Your task to perform on an android device: Open privacy settings Image 0: 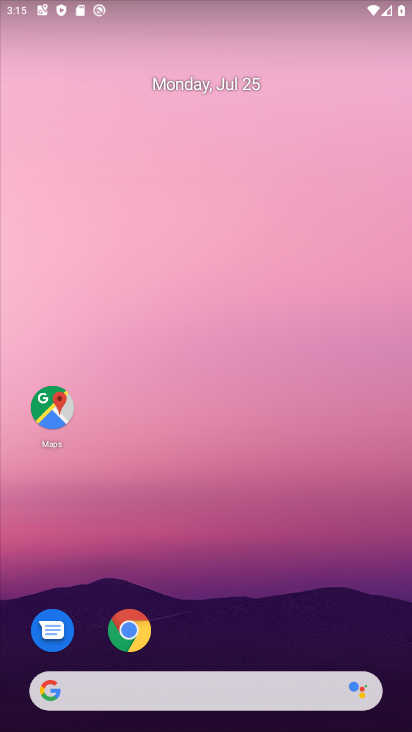
Step 0: click (127, 615)
Your task to perform on an android device: Open privacy settings Image 1: 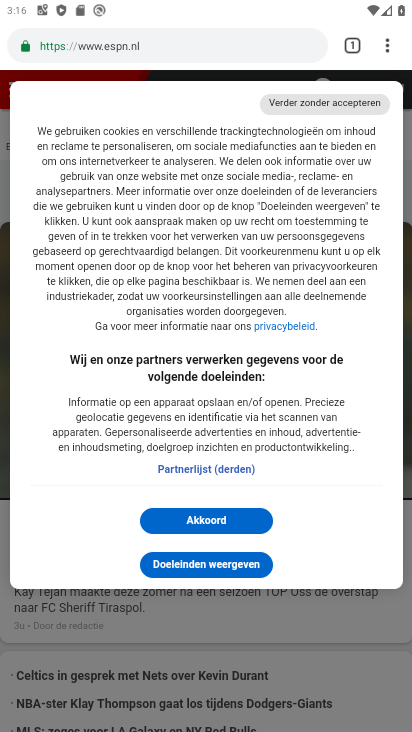
Step 1: drag from (383, 57) to (226, 551)
Your task to perform on an android device: Open privacy settings Image 2: 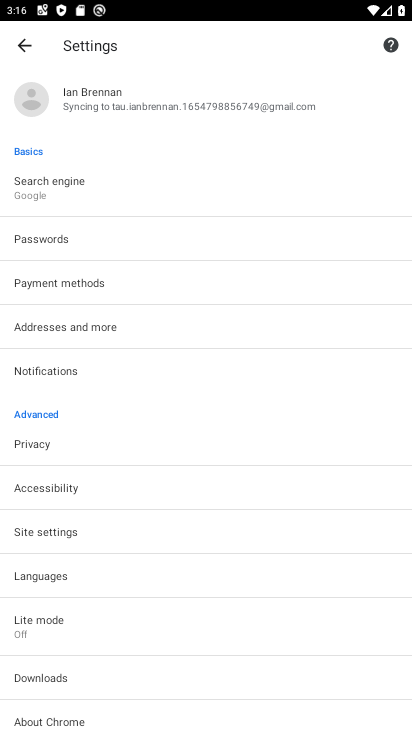
Step 2: click (67, 444)
Your task to perform on an android device: Open privacy settings Image 3: 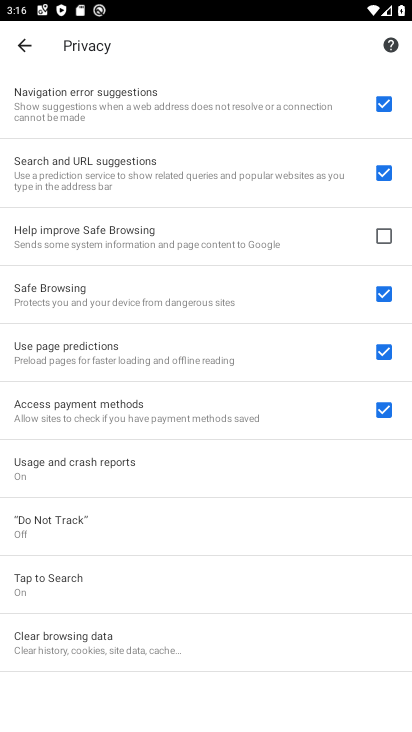
Step 3: task complete